Your task to perform on an android device: change the clock style Image 0: 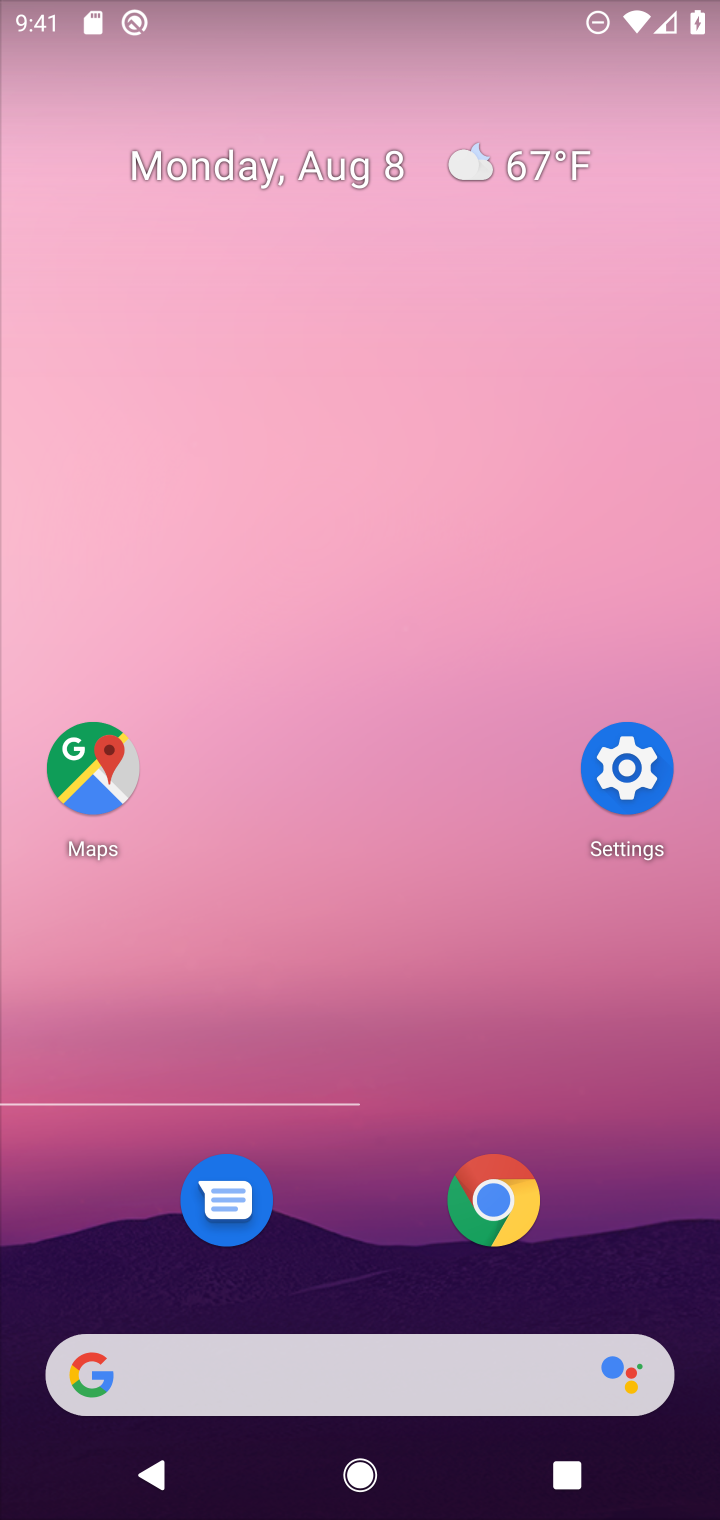
Step 0: press home button
Your task to perform on an android device: change the clock style Image 1: 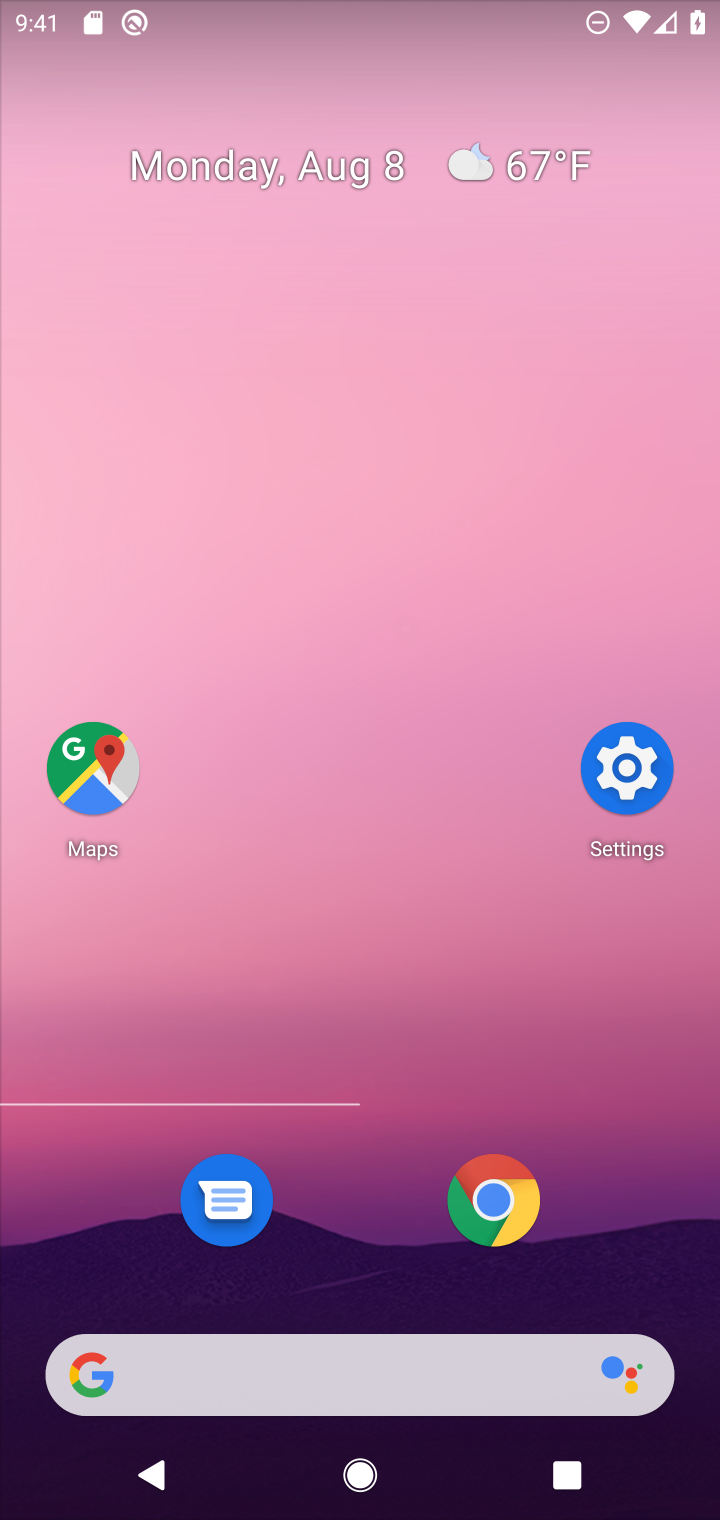
Step 1: drag from (351, 1378) to (431, 4)
Your task to perform on an android device: change the clock style Image 2: 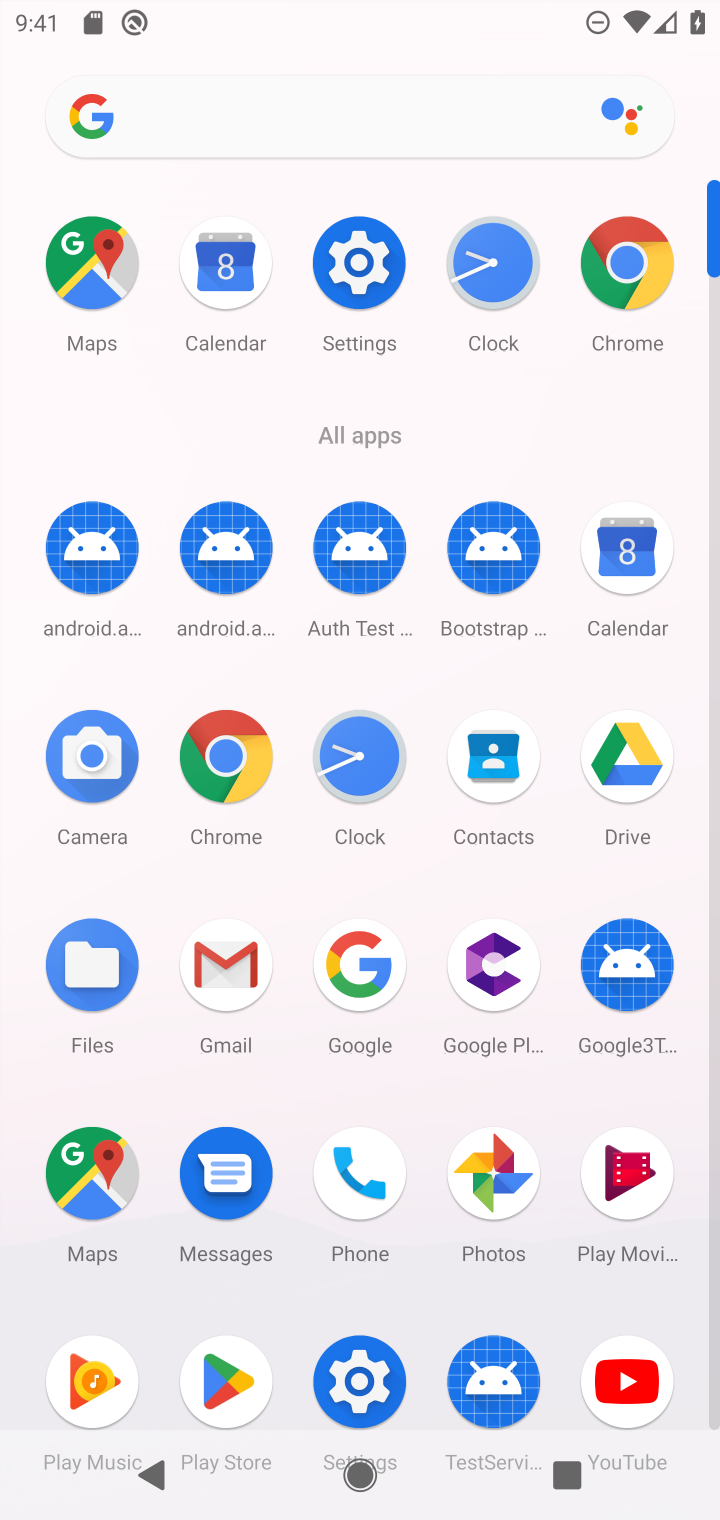
Step 2: click (486, 252)
Your task to perform on an android device: change the clock style Image 3: 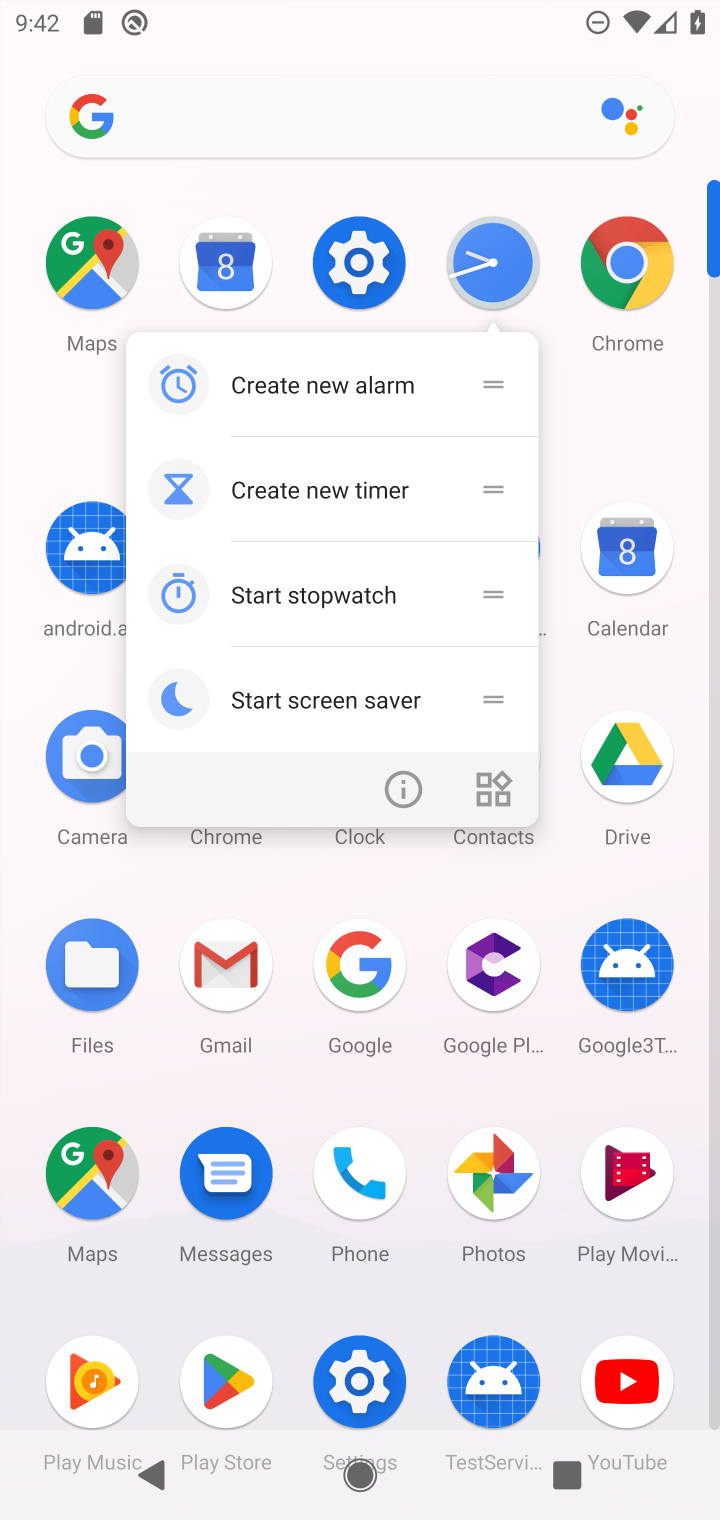
Step 3: click (486, 253)
Your task to perform on an android device: change the clock style Image 4: 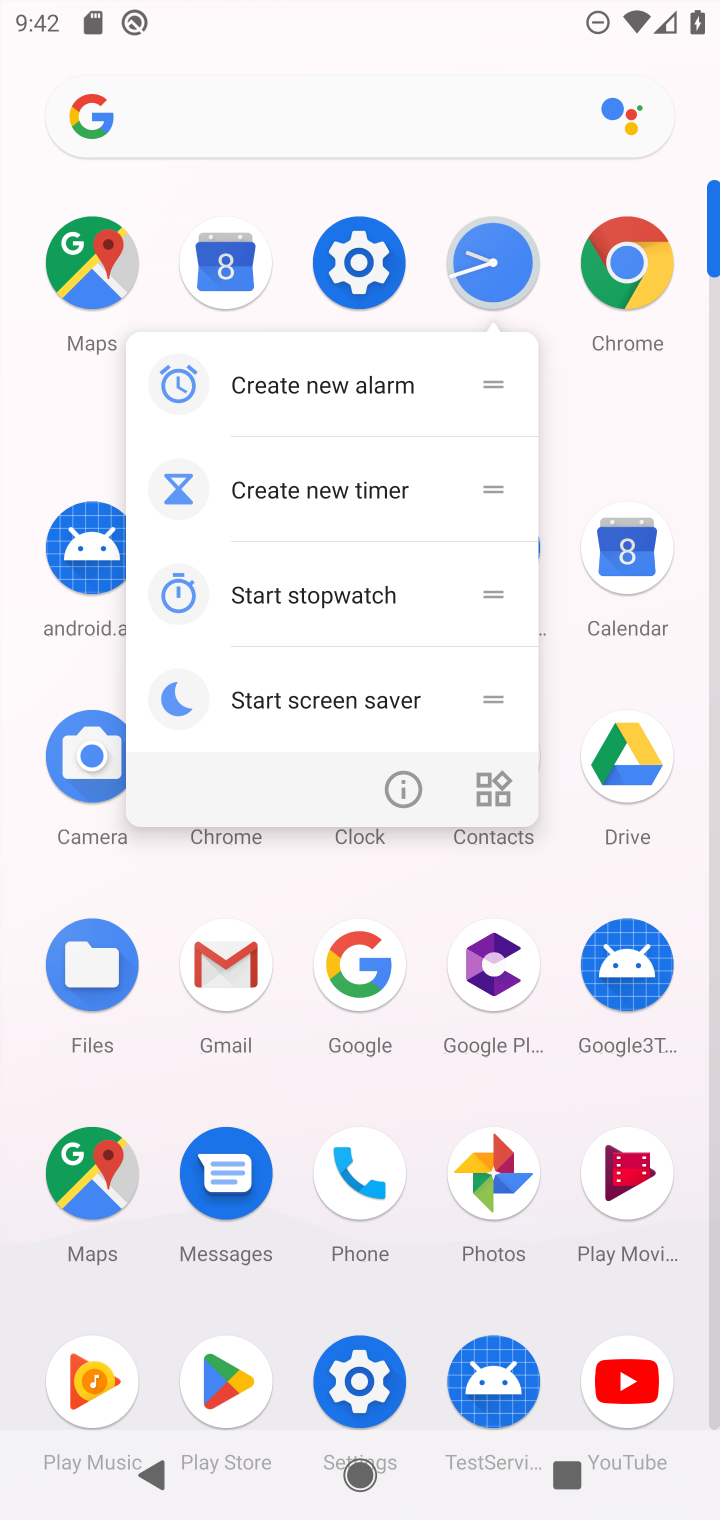
Step 4: click (490, 266)
Your task to perform on an android device: change the clock style Image 5: 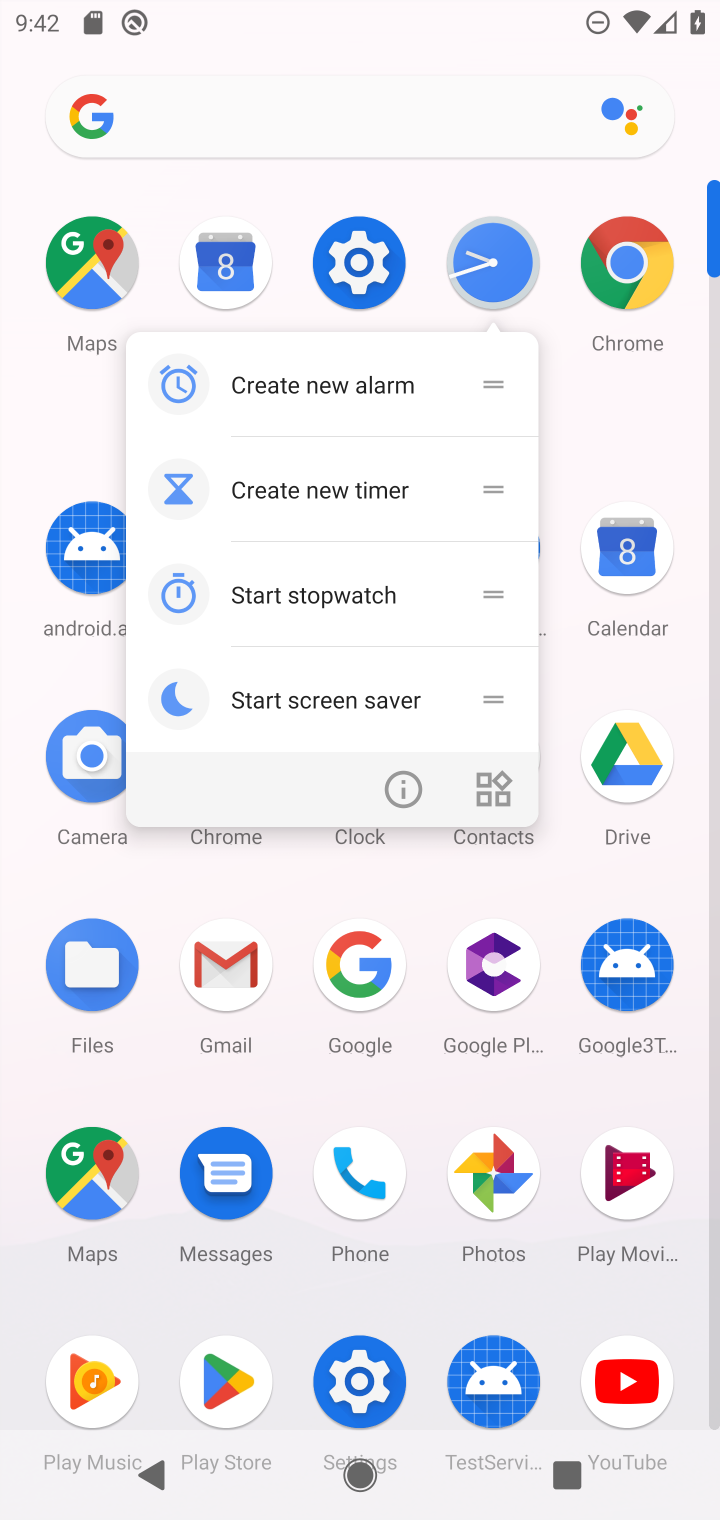
Step 5: click (510, 254)
Your task to perform on an android device: change the clock style Image 6: 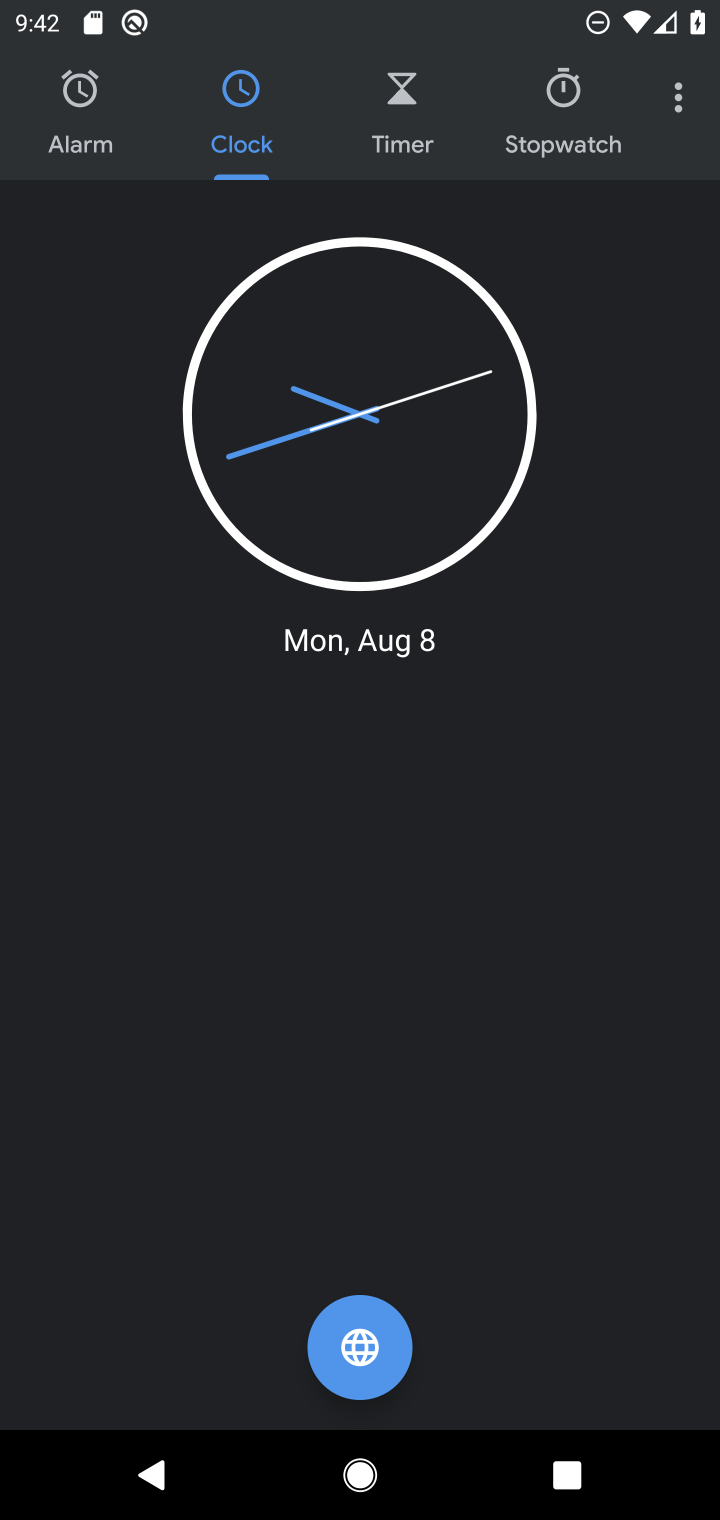
Step 6: click (683, 97)
Your task to perform on an android device: change the clock style Image 7: 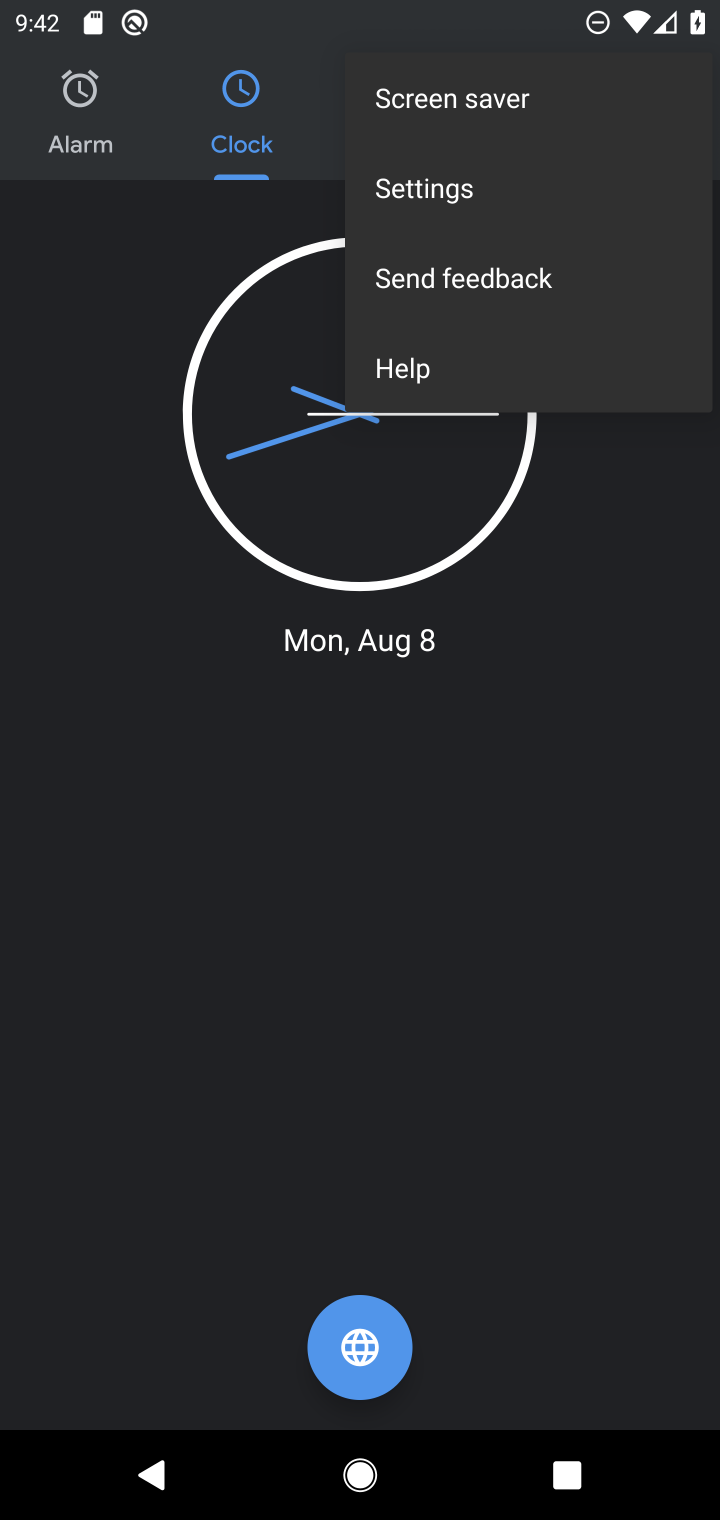
Step 7: click (422, 201)
Your task to perform on an android device: change the clock style Image 8: 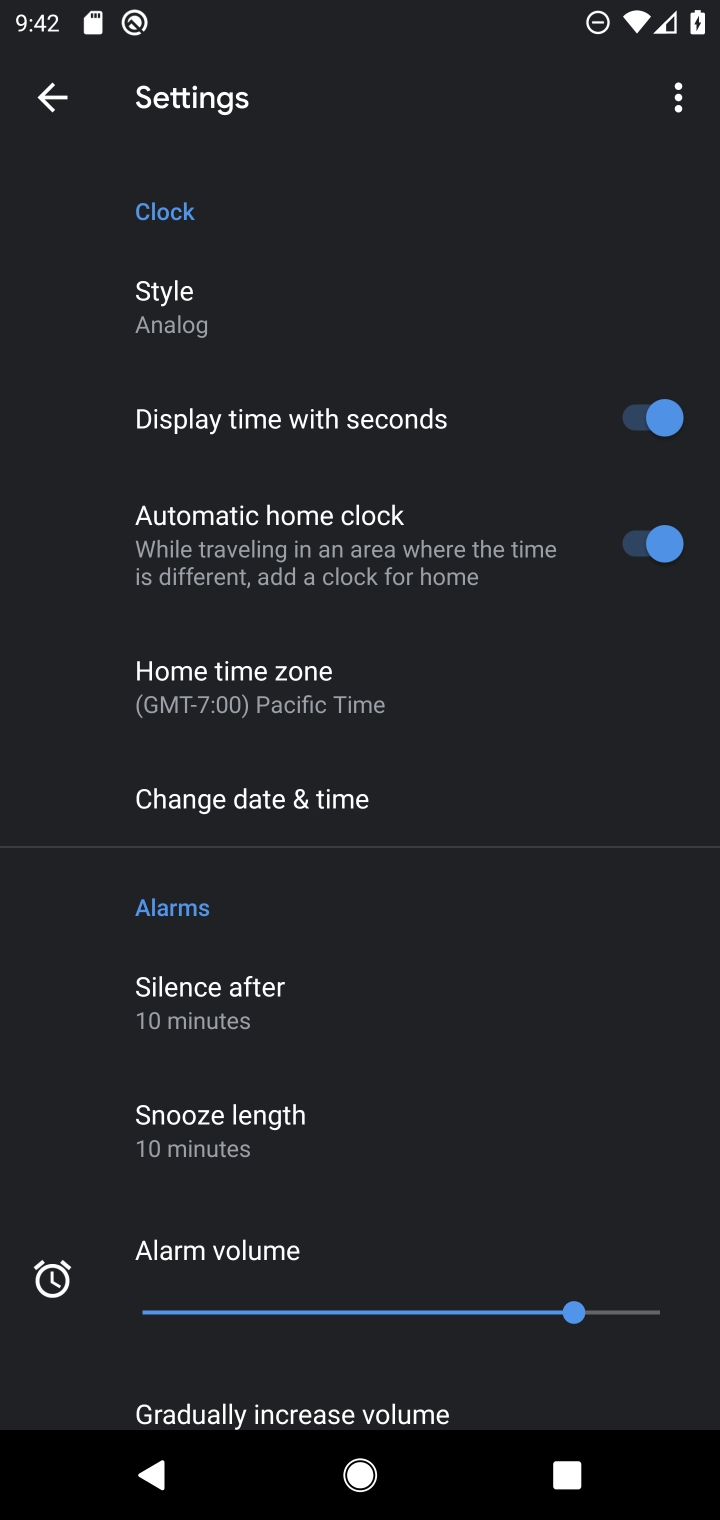
Step 8: click (179, 317)
Your task to perform on an android device: change the clock style Image 9: 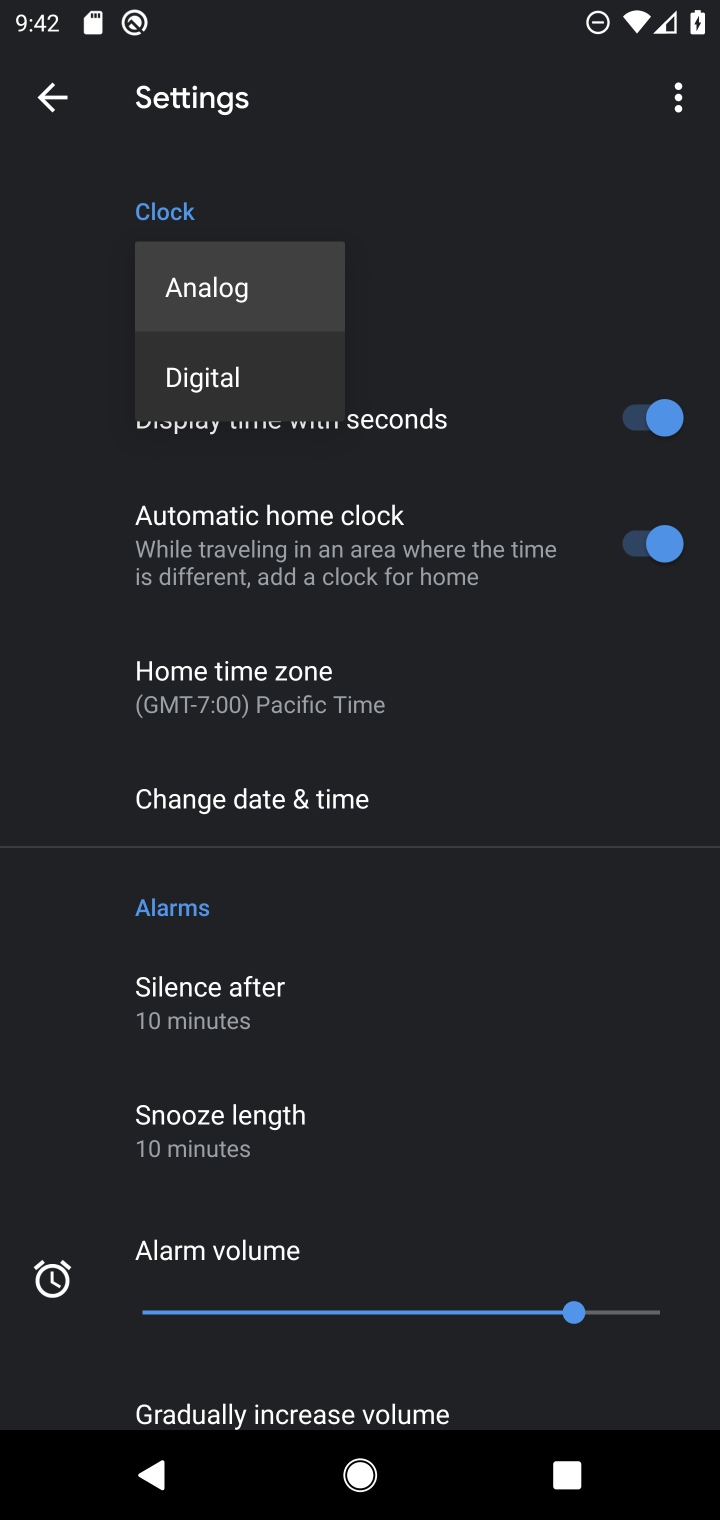
Step 9: click (216, 371)
Your task to perform on an android device: change the clock style Image 10: 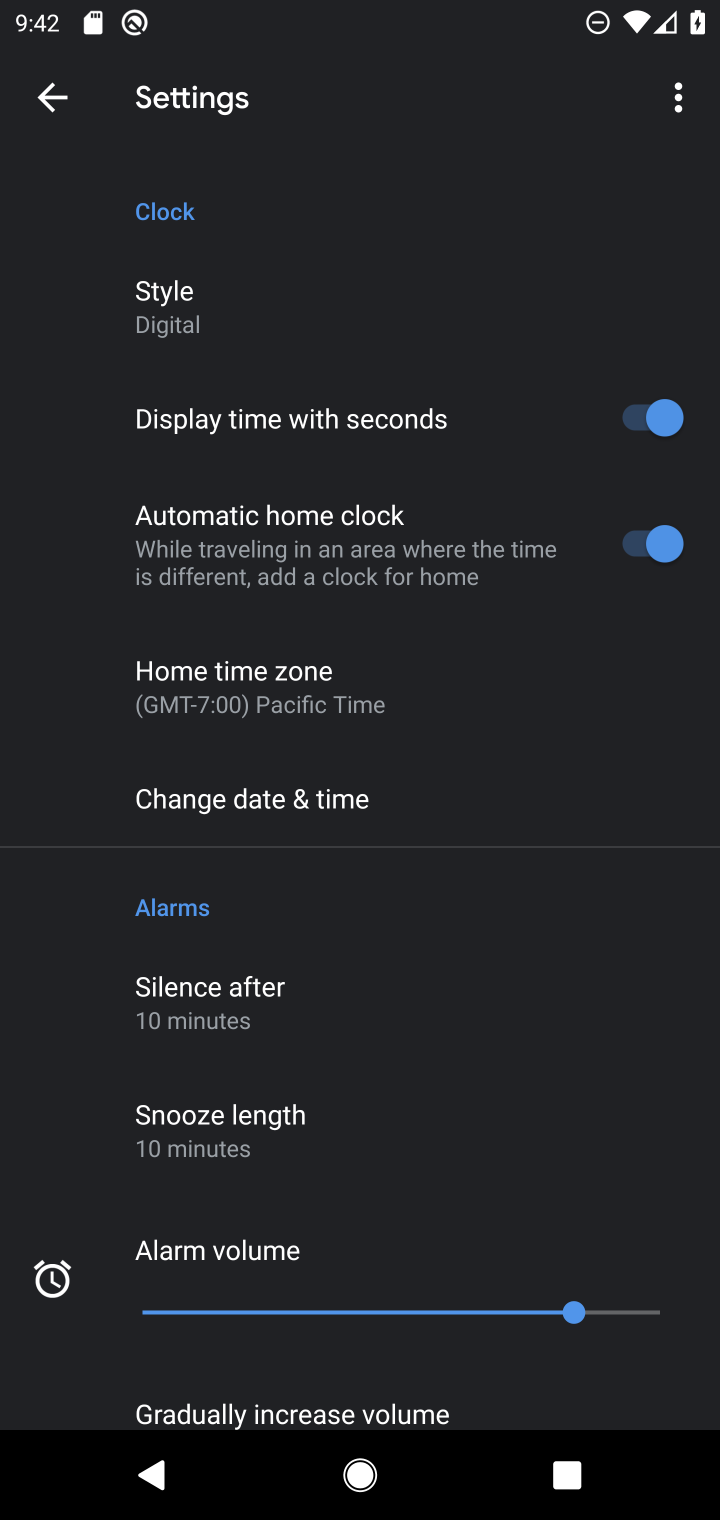
Step 10: task complete